Your task to perform on an android device: turn on showing notifications on the lock screen Image 0: 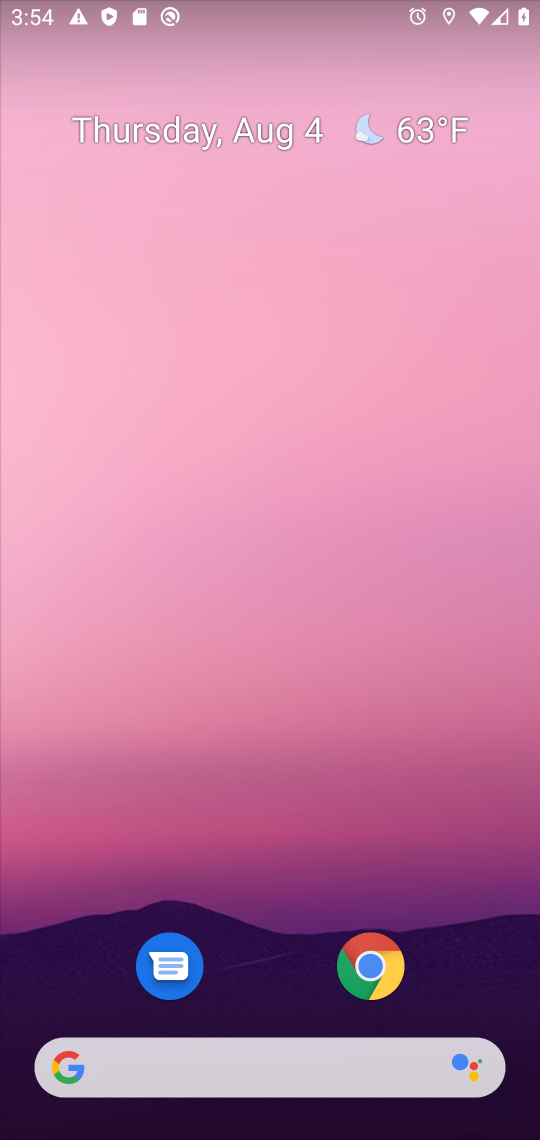
Step 0: drag from (271, 1003) to (319, 71)
Your task to perform on an android device: turn on showing notifications on the lock screen Image 1: 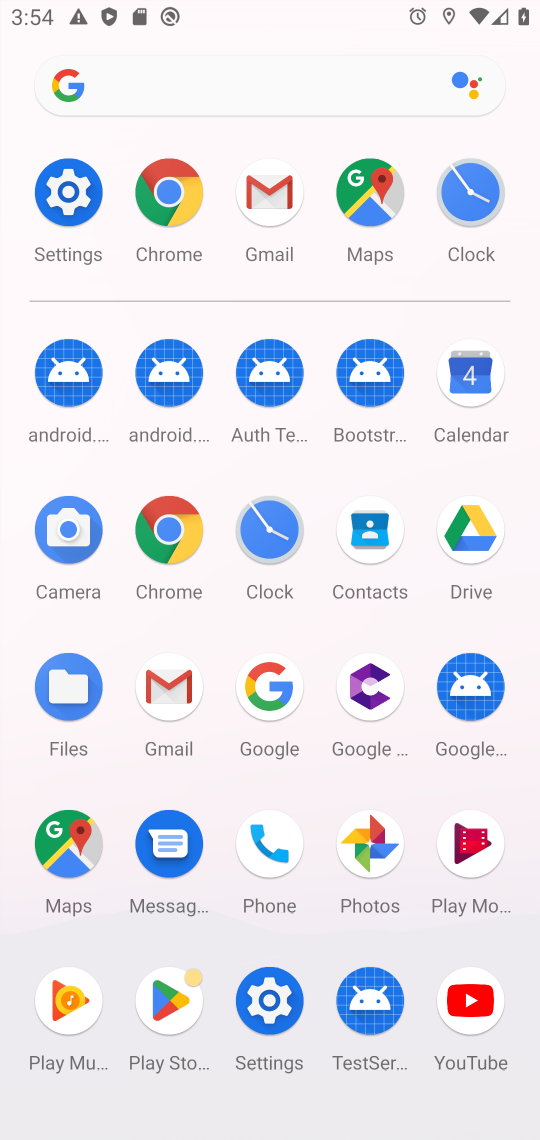
Step 1: click (65, 209)
Your task to perform on an android device: turn on showing notifications on the lock screen Image 2: 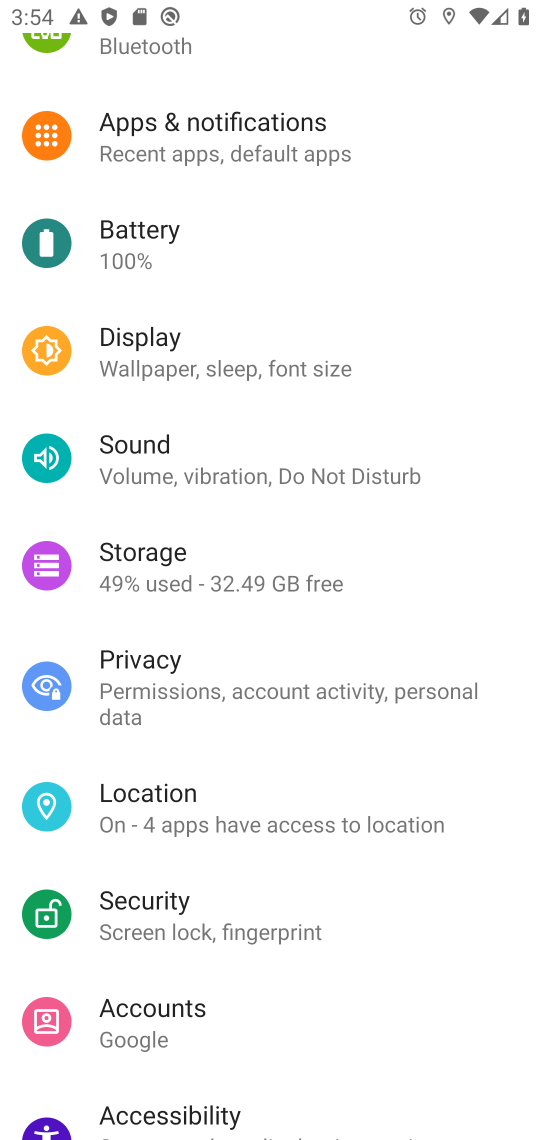
Step 2: click (192, 145)
Your task to perform on an android device: turn on showing notifications on the lock screen Image 3: 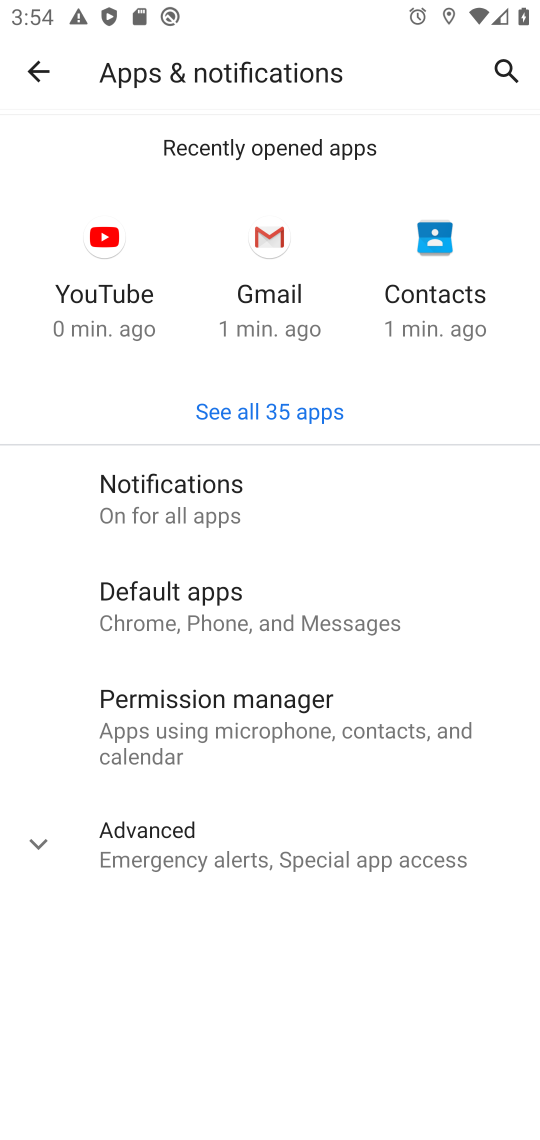
Step 3: click (188, 498)
Your task to perform on an android device: turn on showing notifications on the lock screen Image 4: 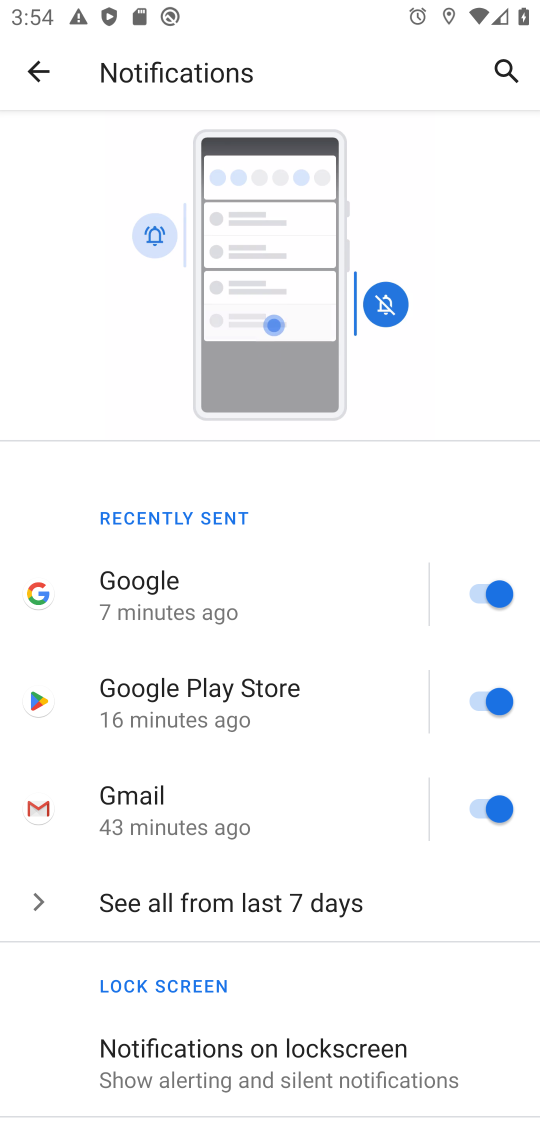
Step 4: drag from (455, 965) to (286, 136)
Your task to perform on an android device: turn on showing notifications on the lock screen Image 5: 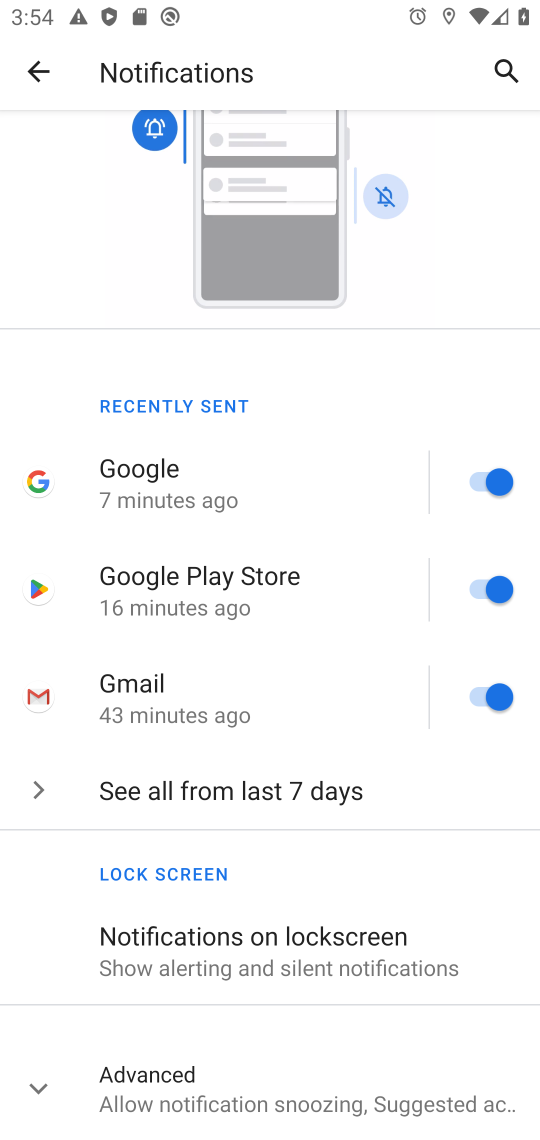
Step 5: drag from (315, 881) to (181, 165)
Your task to perform on an android device: turn on showing notifications on the lock screen Image 6: 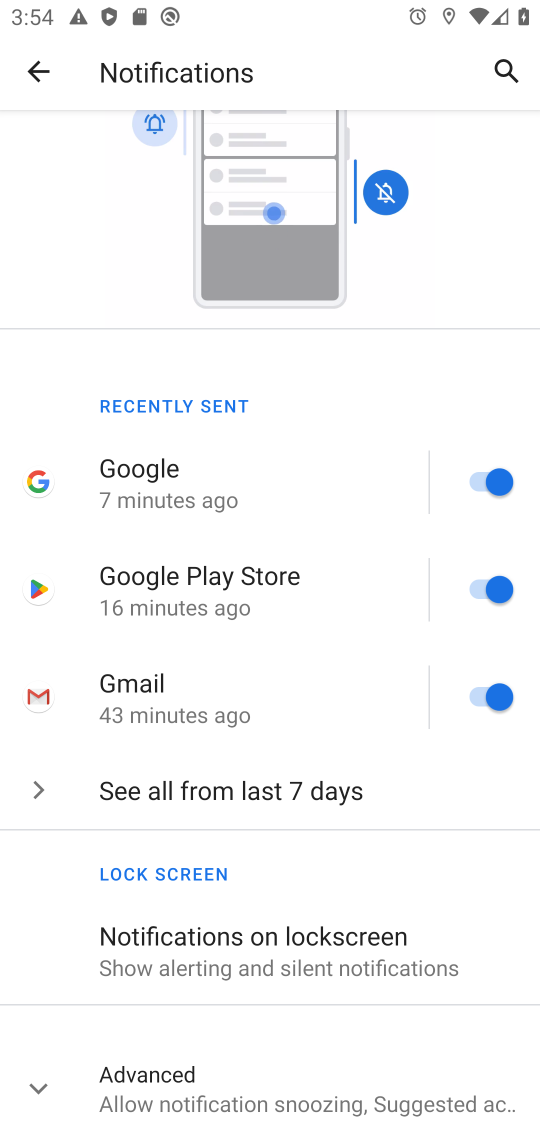
Step 6: click (201, 951)
Your task to perform on an android device: turn on showing notifications on the lock screen Image 7: 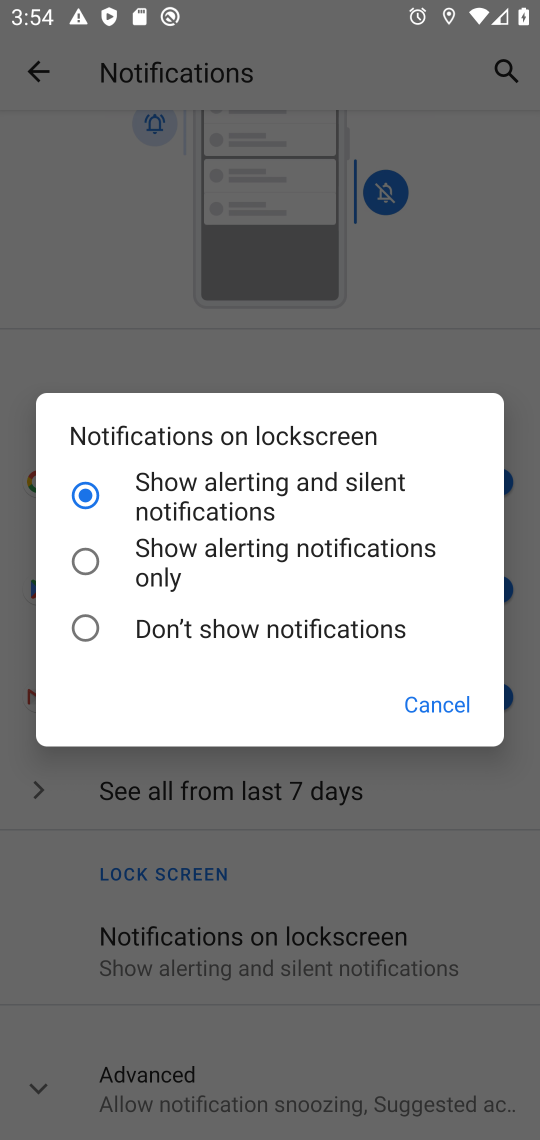
Step 7: task complete